Your task to perform on an android device: Go to internet settings Image 0: 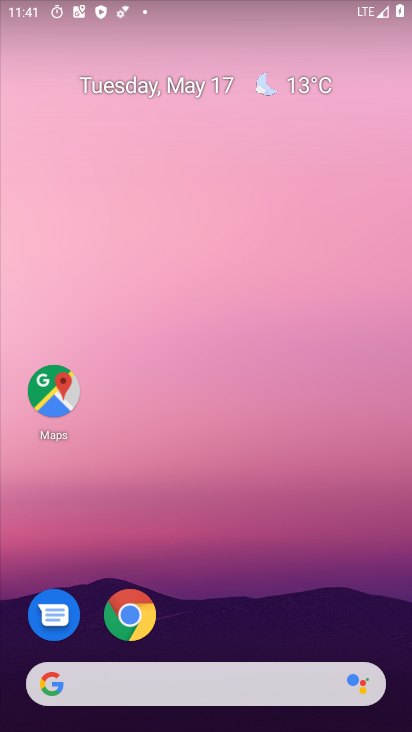
Step 0: drag from (142, 668) to (288, 122)
Your task to perform on an android device: Go to internet settings Image 1: 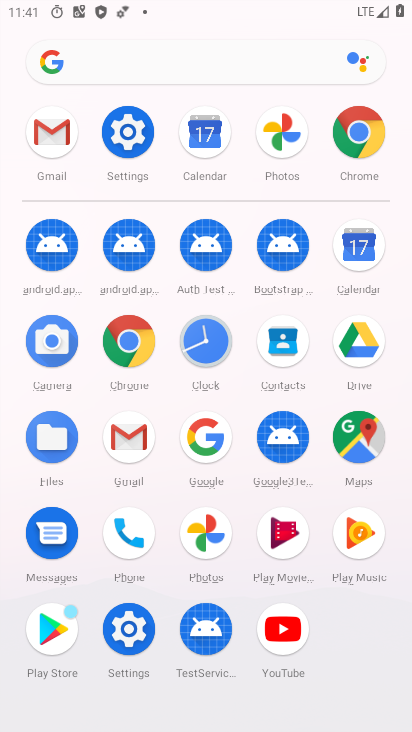
Step 1: click (122, 142)
Your task to perform on an android device: Go to internet settings Image 2: 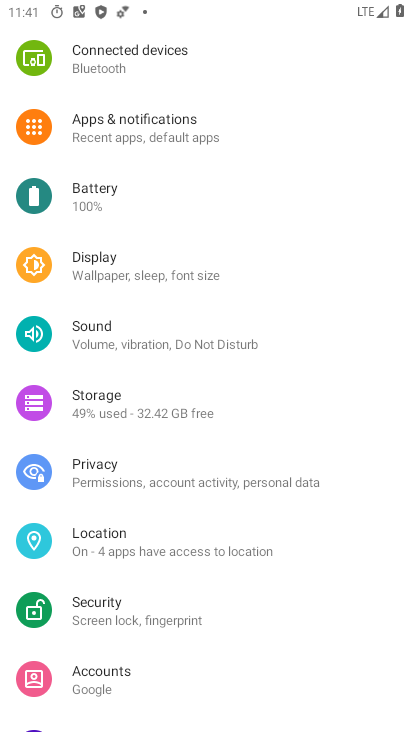
Step 2: drag from (287, 157) to (210, 555)
Your task to perform on an android device: Go to internet settings Image 3: 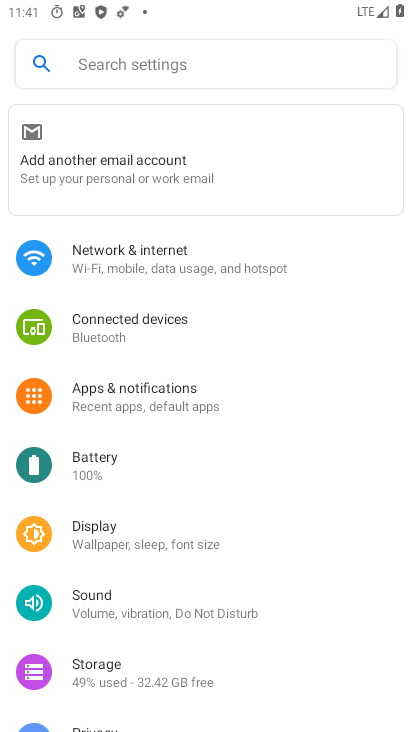
Step 3: click (154, 255)
Your task to perform on an android device: Go to internet settings Image 4: 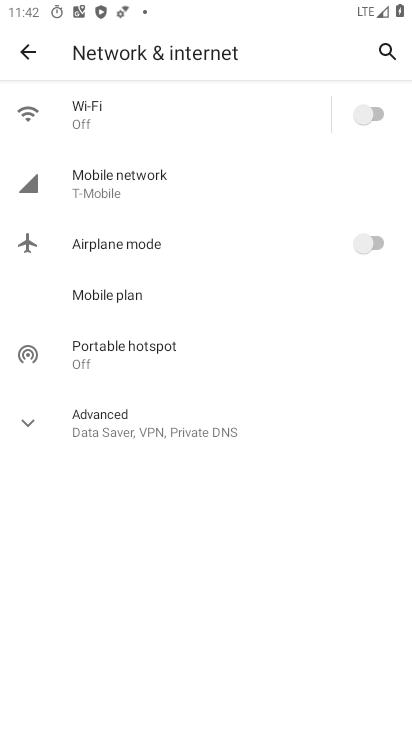
Step 4: task complete